Your task to perform on an android device: turn off javascript in the chrome app Image 0: 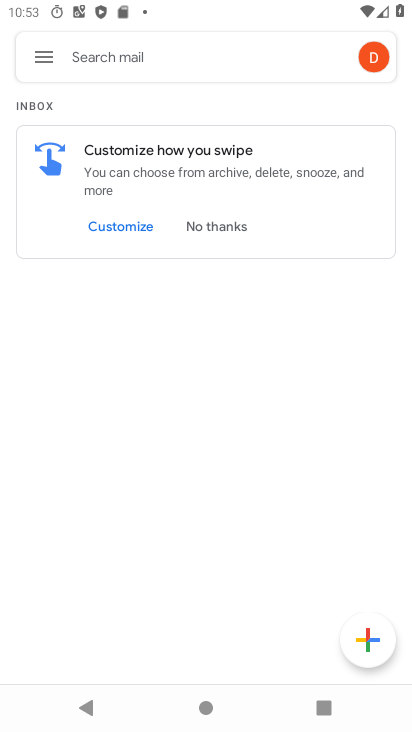
Step 0: press home button
Your task to perform on an android device: turn off javascript in the chrome app Image 1: 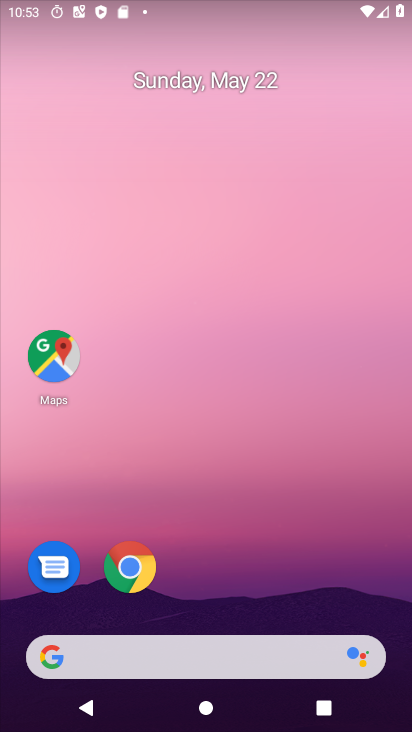
Step 1: drag from (331, 554) to (341, 18)
Your task to perform on an android device: turn off javascript in the chrome app Image 2: 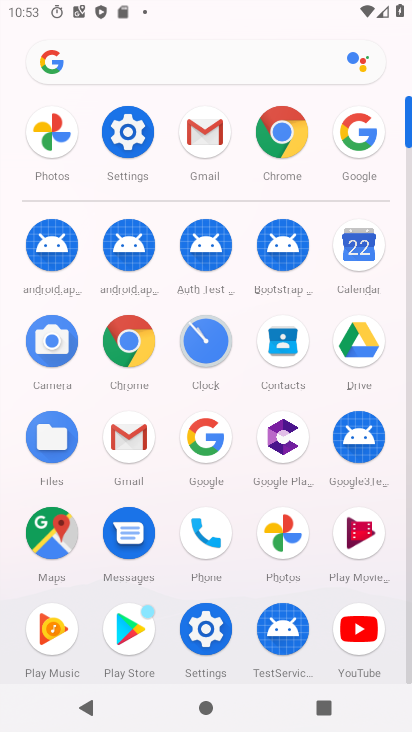
Step 2: click (147, 350)
Your task to perform on an android device: turn off javascript in the chrome app Image 3: 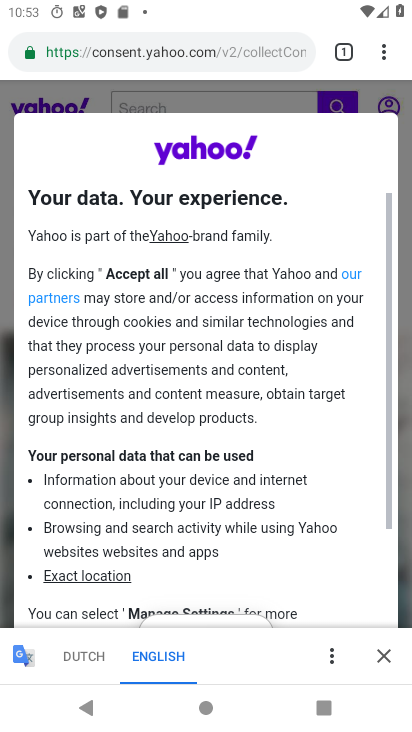
Step 3: click (390, 656)
Your task to perform on an android device: turn off javascript in the chrome app Image 4: 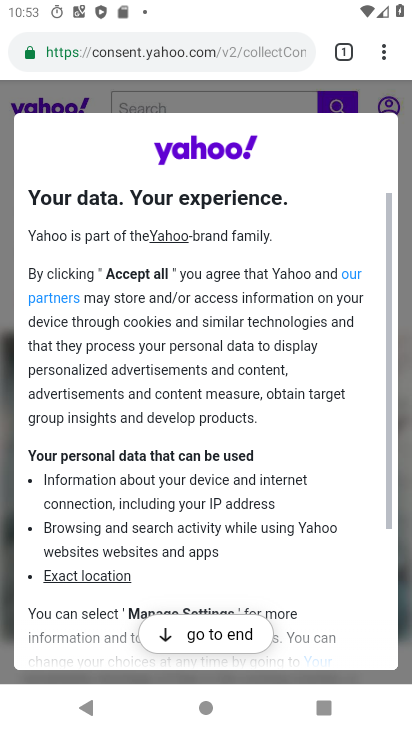
Step 4: click (181, 630)
Your task to perform on an android device: turn off javascript in the chrome app Image 5: 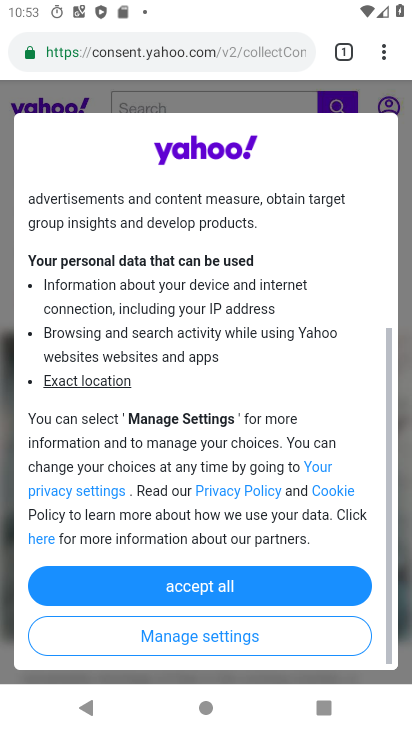
Step 5: click (201, 576)
Your task to perform on an android device: turn off javascript in the chrome app Image 6: 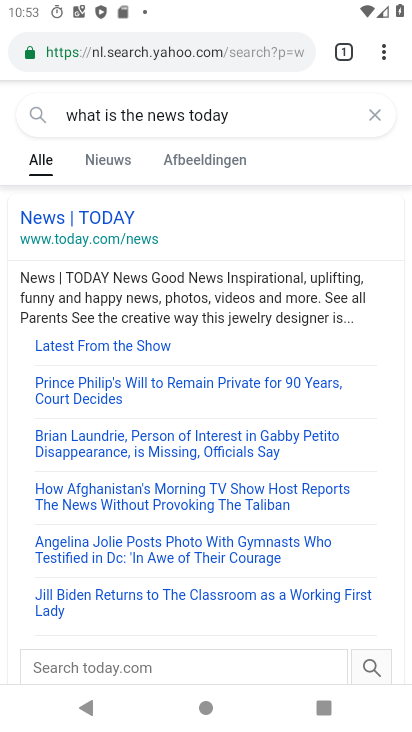
Step 6: drag from (393, 66) to (228, 581)
Your task to perform on an android device: turn off javascript in the chrome app Image 7: 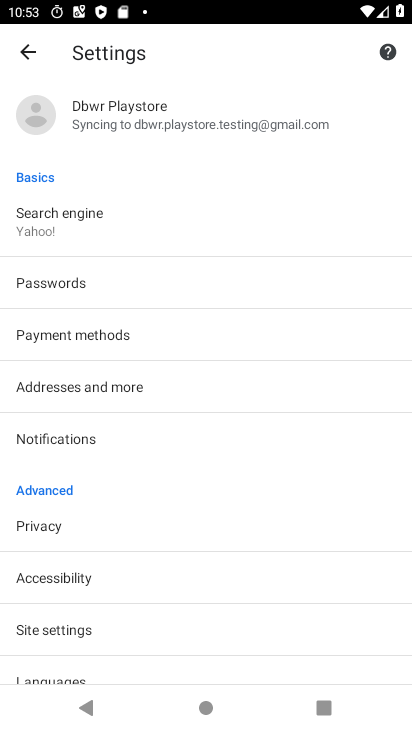
Step 7: click (98, 638)
Your task to perform on an android device: turn off javascript in the chrome app Image 8: 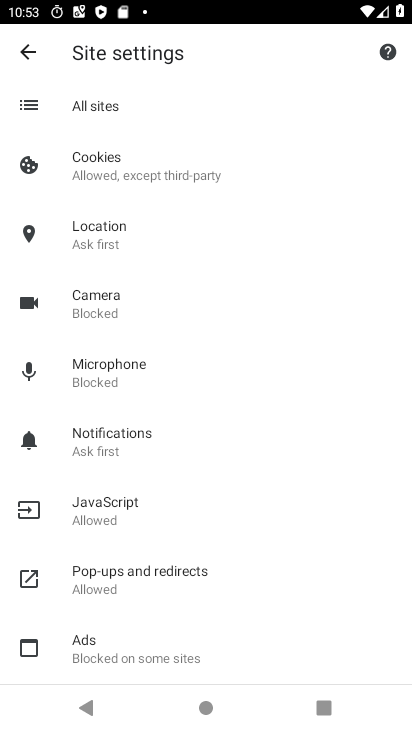
Step 8: click (148, 509)
Your task to perform on an android device: turn off javascript in the chrome app Image 9: 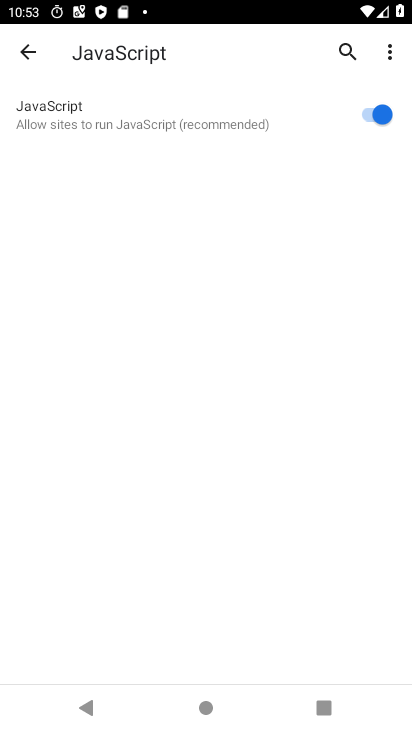
Step 9: click (376, 116)
Your task to perform on an android device: turn off javascript in the chrome app Image 10: 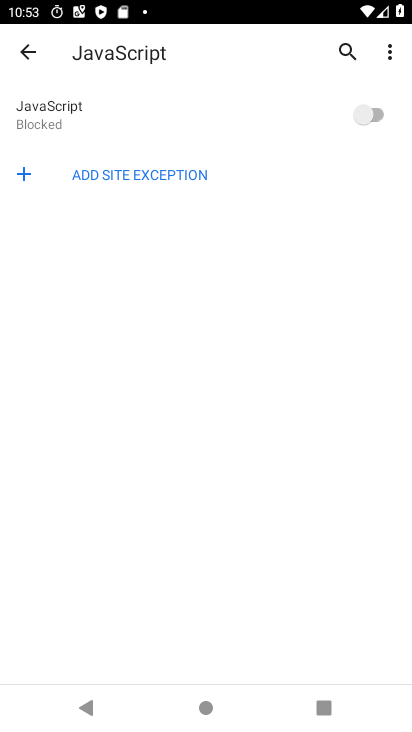
Step 10: task complete